Your task to perform on an android device: add a contact Image 0: 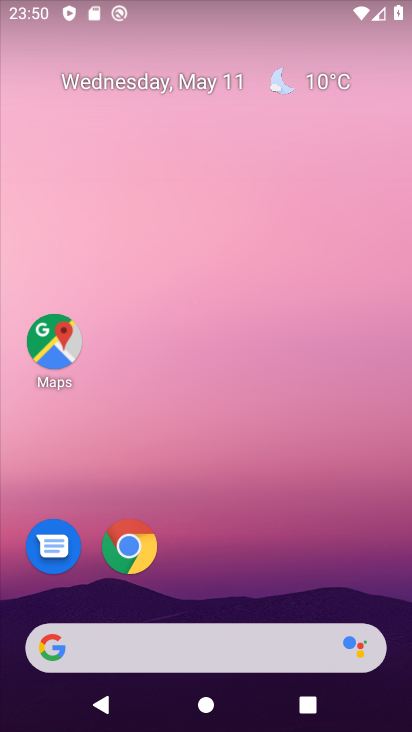
Step 0: drag from (204, 574) to (239, 186)
Your task to perform on an android device: add a contact Image 1: 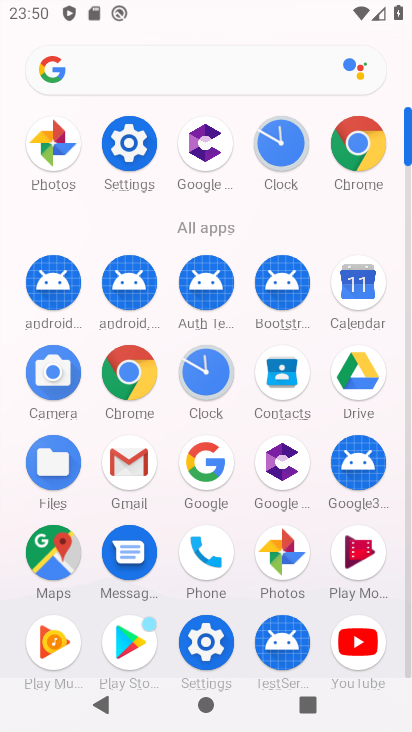
Step 1: click (278, 375)
Your task to perform on an android device: add a contact Image 2: 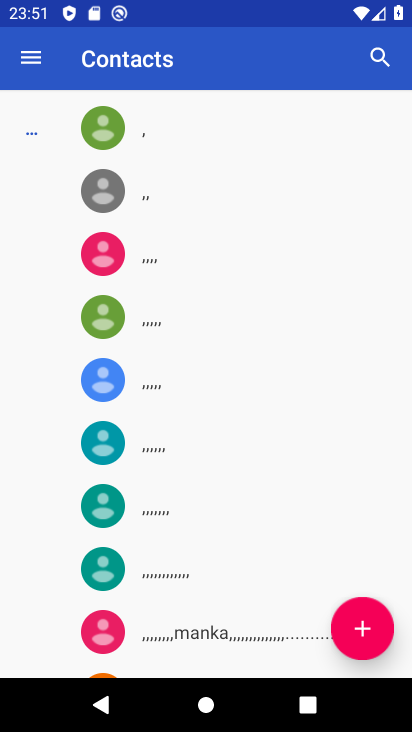
Step 2: task complete